Your task to perform on an android device: Go to Wikipedia Image 0: 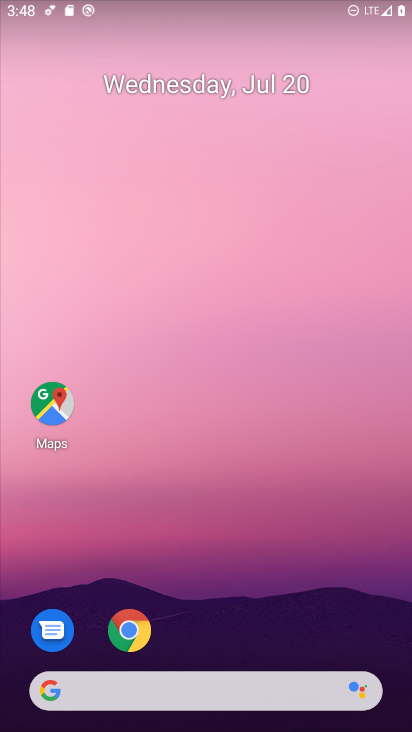
Step 0: press home button
Your task to perform on an android device: Go to Wikipedia Image 1: 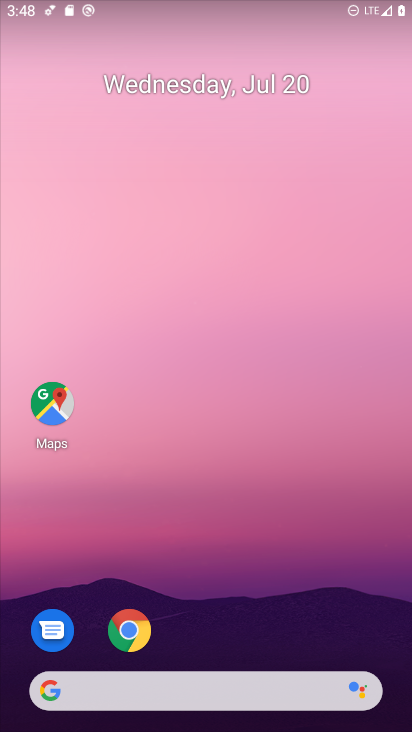
Step 1: click (123, 626)
Your task to perform on an android device: Go to Wikipedia Image 2: 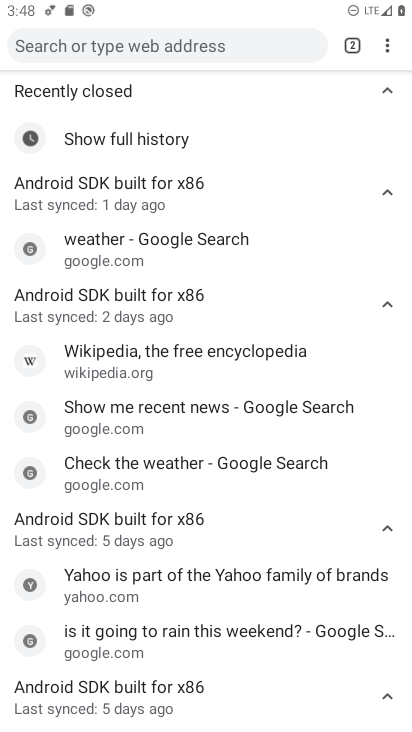
Step 2: click (356, 40)
Your task to perform on an android device: Go to Wikipedia Image 3: 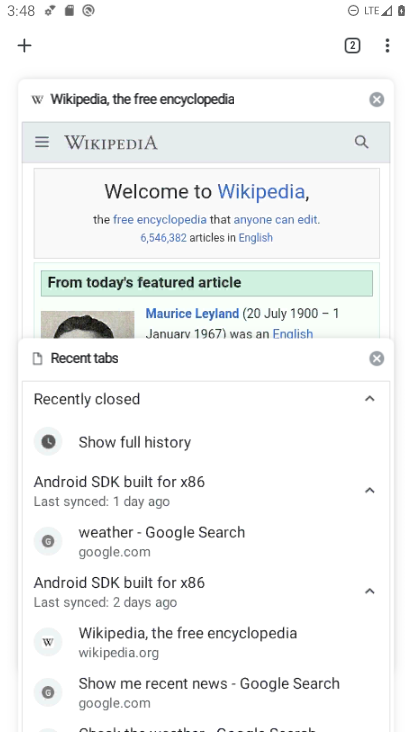
Step 3: click (16, 37)
Your task to perform on an android device: Go to Wikipedia Image 4: 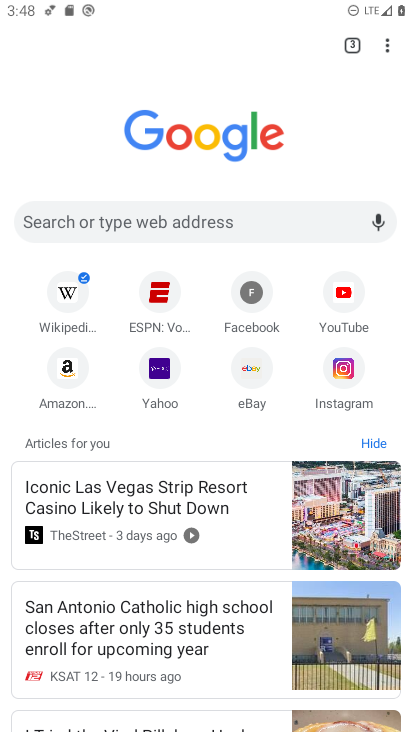
Step 4: click (65, 283)
Your task to perform on an android device: Go to Wikipedia Image 5: 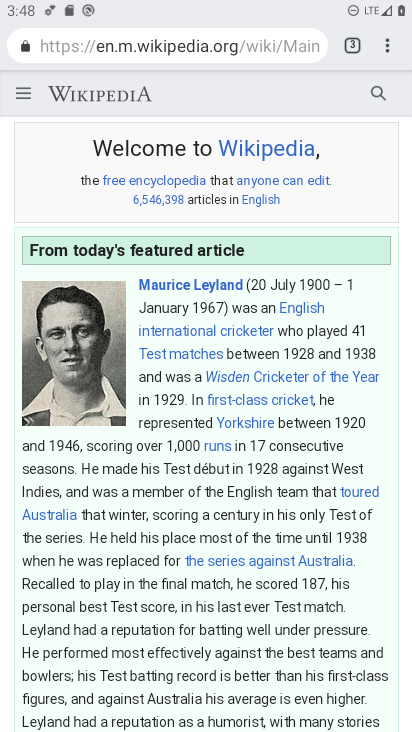
Step 5: task complete